Your task to perform on an android device: Go to wifi settings Image 0: 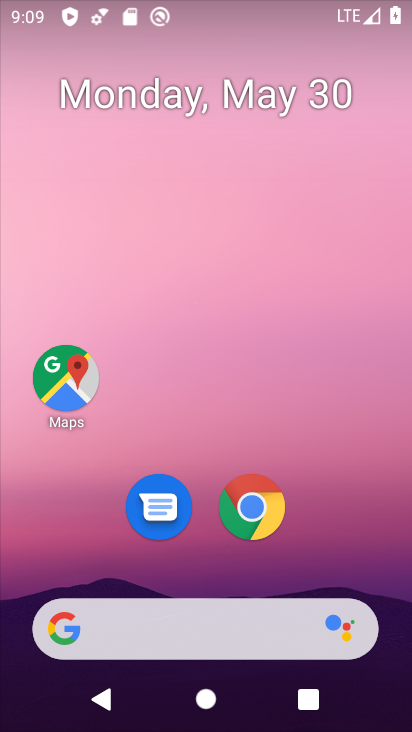
Step 0: drag from (192, 565) to (263, 28)
Your task to perform on an android device: Go to wifi settings Image 1: 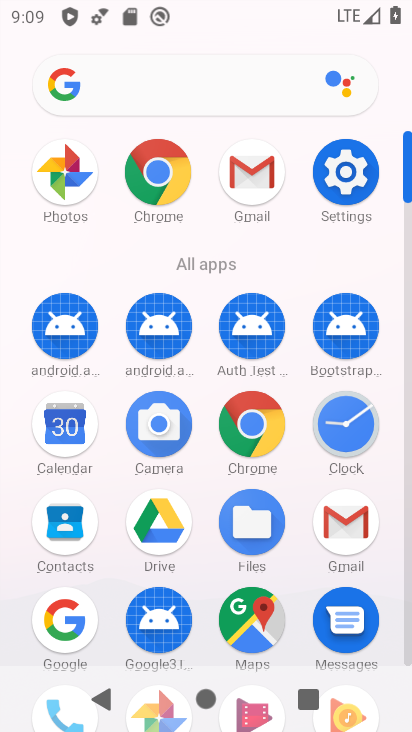
Step 1: click (342, 155)
Your task to perform on an android device: Go to wifi settings Image 2: 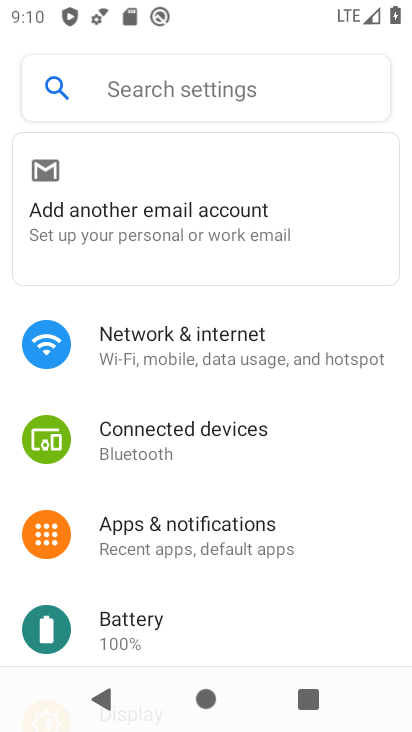
Step 2: click (221, 347)
Your task to perform on an android device: Go to wifi settings Image 3: 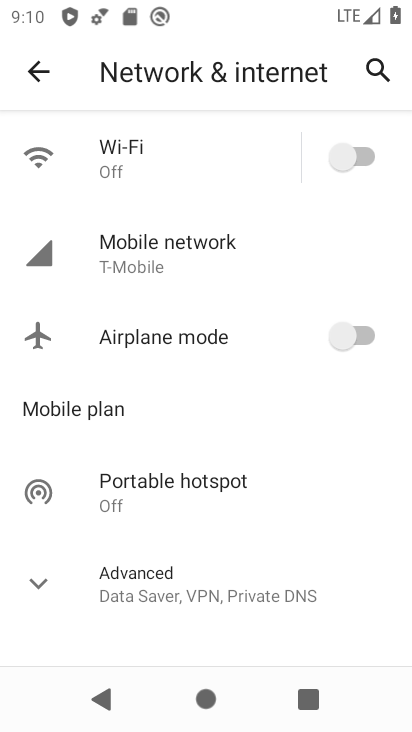
Step 3: click (93, 156)
Your task to perform on an android device: Go to wifi settings Image 4: 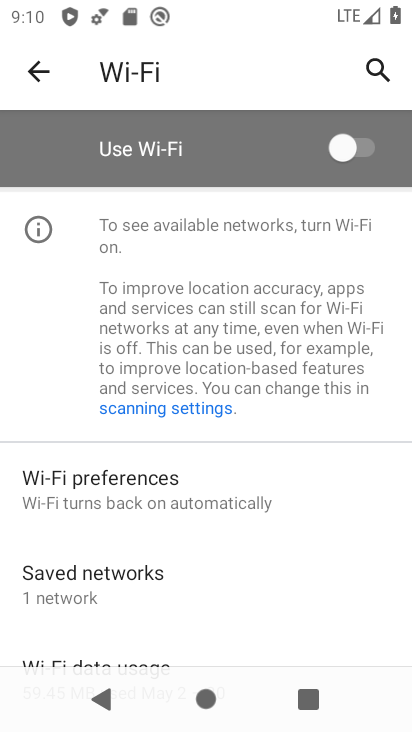
Step 4: click (359, 158)
Your task to perform on an android device: Go to wifi settings Image 5: 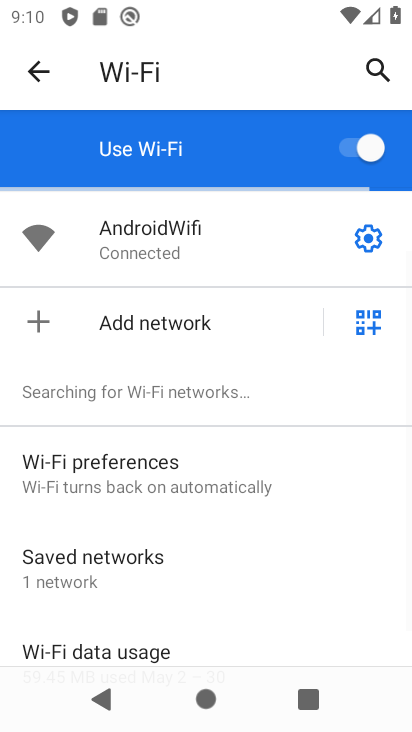
Step 5: click (380, 229)
Your task to perform on an android device: Go to wifi settings Image 6: 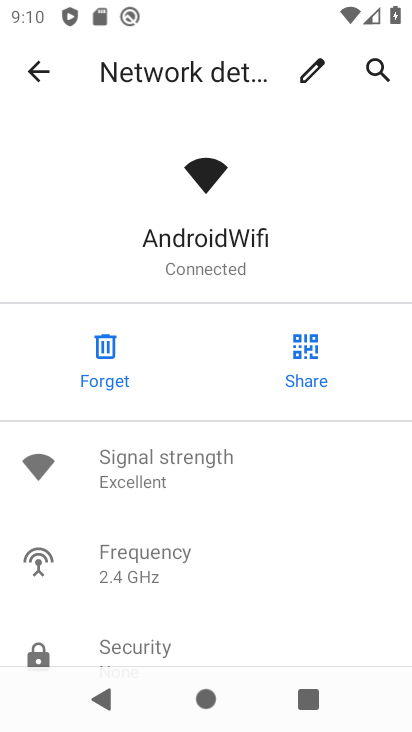
Step 6: task complete